Your task to perform on an android device: When is my next meeting? Image 0: 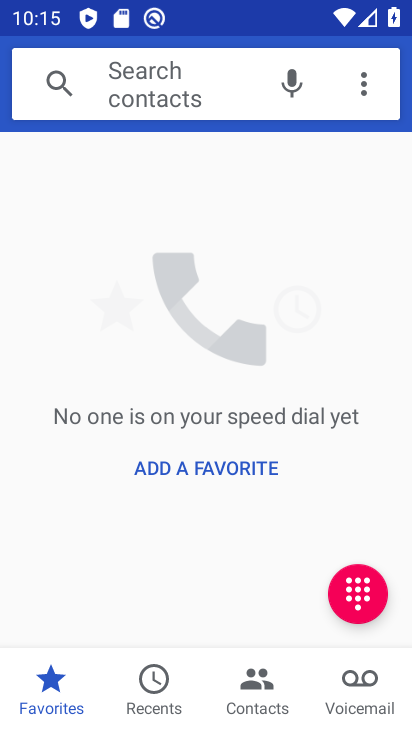
Step 0: press home button
Your task to perform on an android device: When is my next meeting? Image 1: 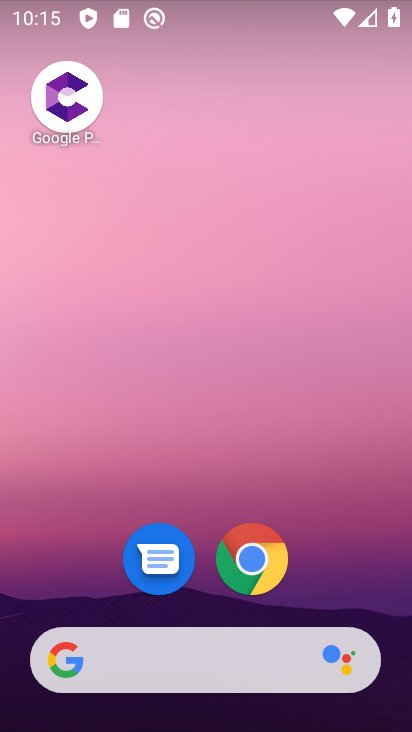
Step 1: drag from (202, 579) to (239, 221)
Your task to perform on an android device: When is my next meeting? Image 2: 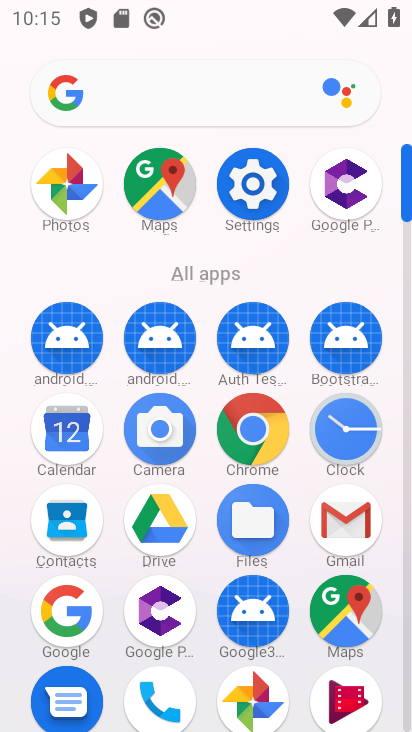
Step 2: click (68, 450)
Your task to perform on an android device: When is my next meeting? Image 3: 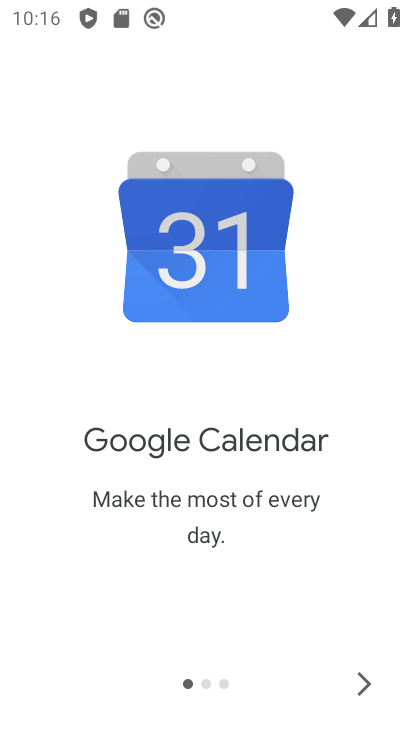
Step 3: click (361, 687)
Your task to perform on an android device: When is my next meeting? Image 4: 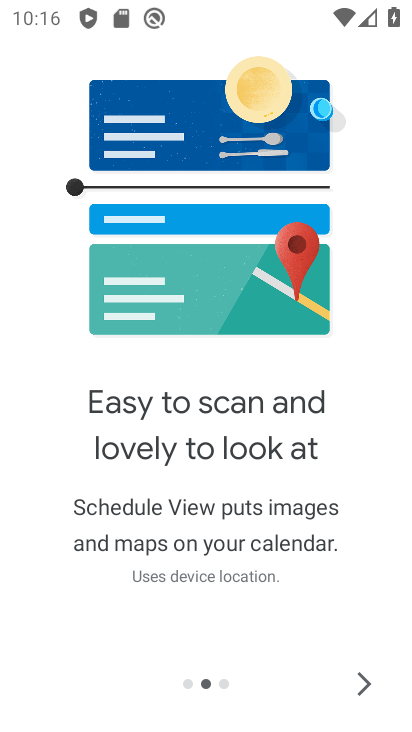
Step 4: click (363, 686)
Your task to perform on an android device: When is my next meeting? Image 5: 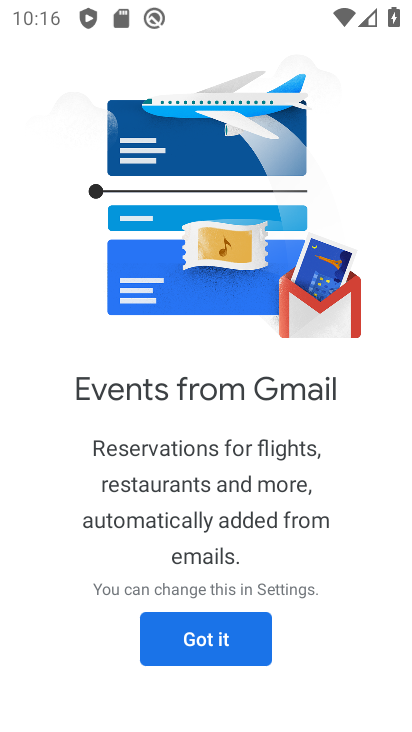
Step 5: click (199, 629)
Your task to perform on an android device: When is my next meeting? Image 6: 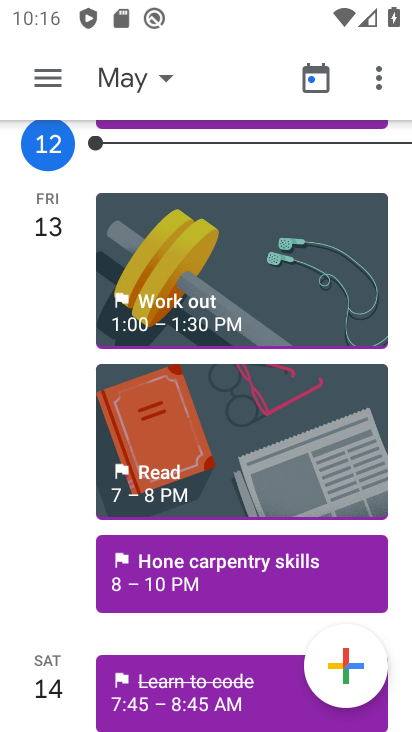
Step 6: task complete